Your task to perform on an android device: turn on showing notifications on the lock screen Image 0: 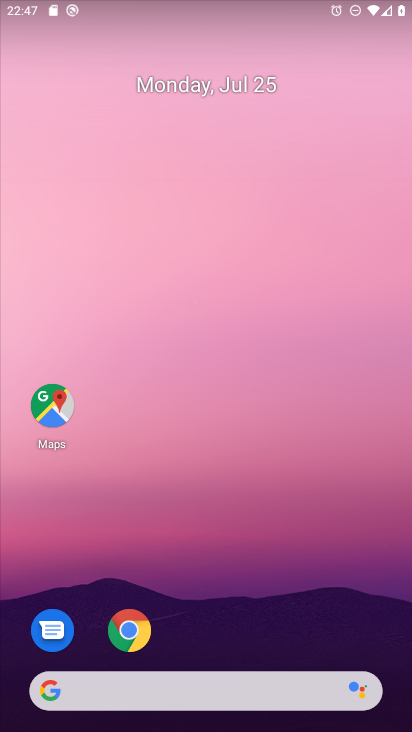
Step 0: drag from (314, 640) to (232, 81)
Your task to perform on an android device: turn on showing notifications on the lock screen Image 1: 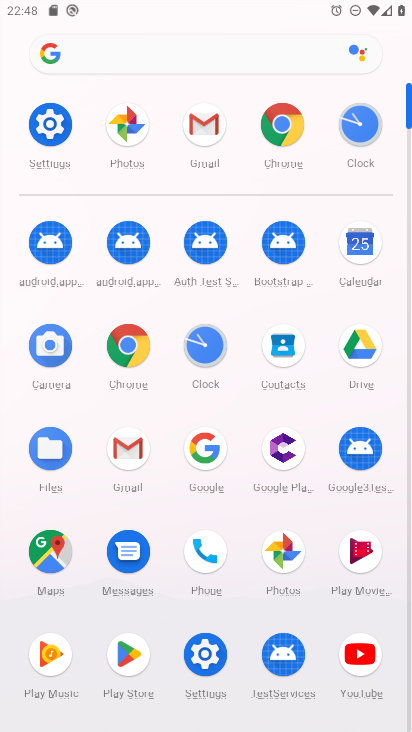
Step 1: click (53, 124)
Your task to perform on an android device: turn on showing notifications on the lock screen Image 2: 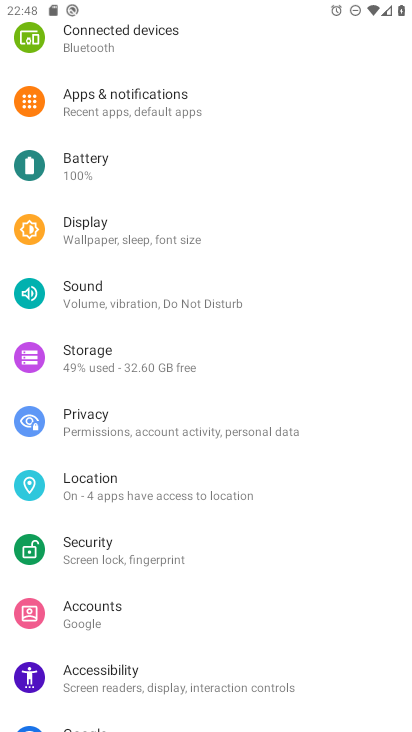
Step 2: click (172, 98)
Your task to perform on an android device: turn on showing notifications on the lock screen Image 3: 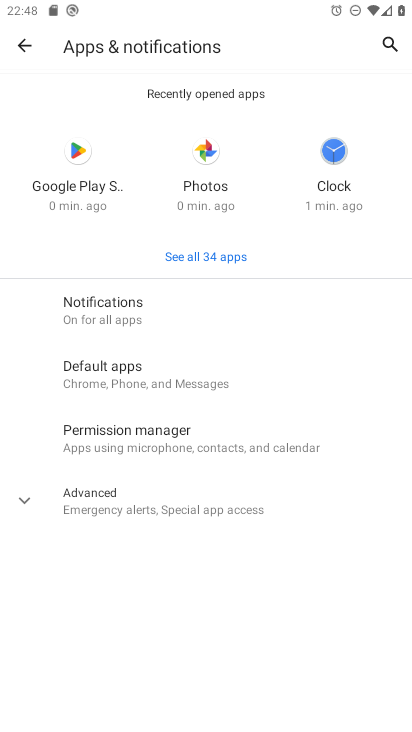
Step 3: click (88, 314)
Your task to perform on an android device: turn on showing notifications on the lock screen Image 4: 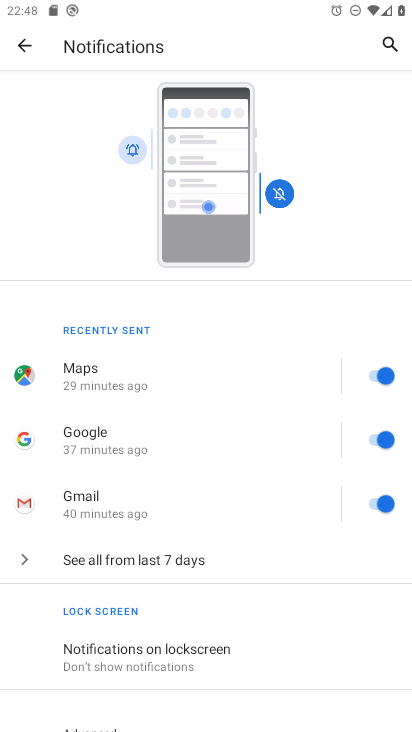
Step 4: drag from (301, 623) to (278, 279)
Your task to perform on an android device: turn on showing notifications on the lock screen Image 5: 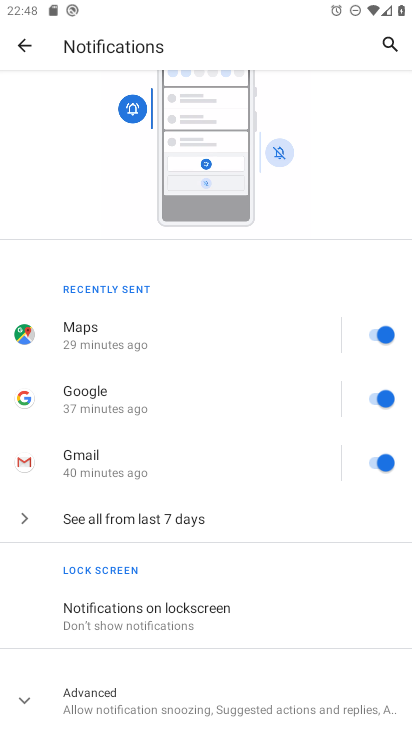
Step 5: click (171, 618)
Your task to perform on an android device: turn on showing notifications on the lock screen Image 6: 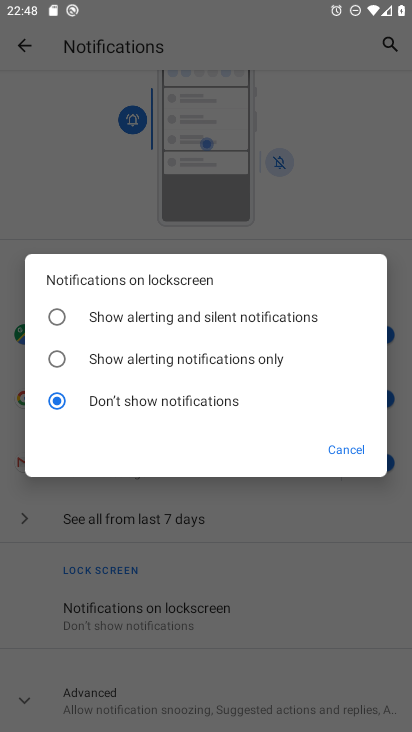
Step 6: click (176, 362)
Your task to perform on an android device: turn on showing notifications on the lock screen Image 7: 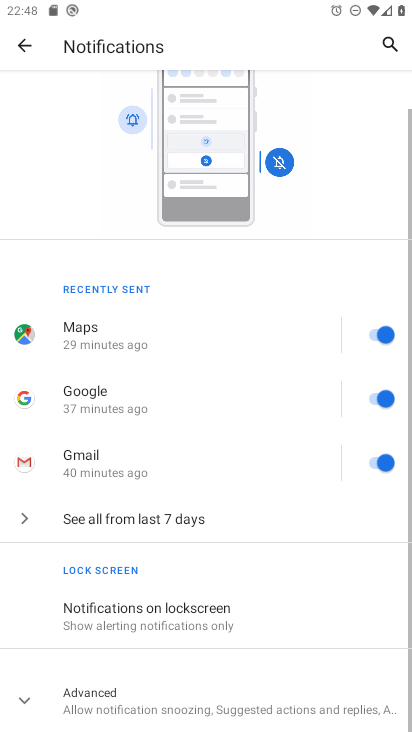
Step 7: task complete